Your task to perform on an android device: toggle airplane mode Image 0: 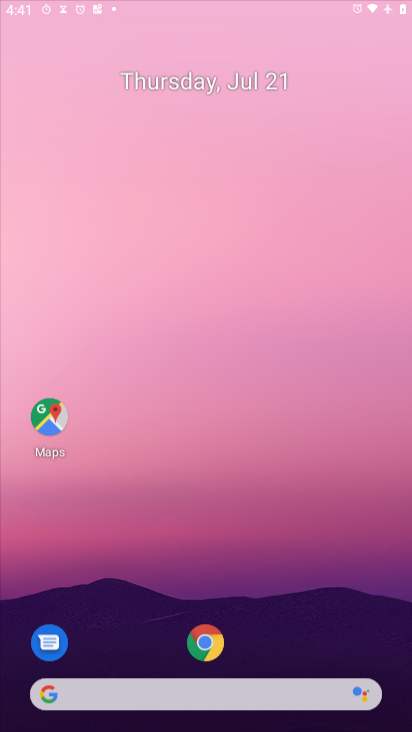
Step 0: press home button
Your task to perform on an android device: toggle airplane mode Image 1: 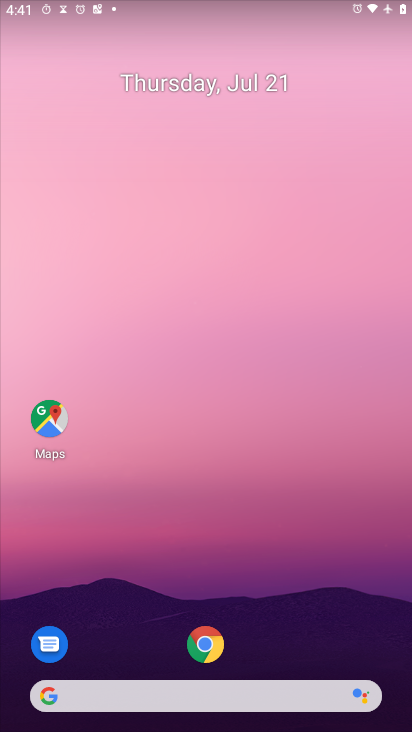
Step 1: drag from (229, 0) to (140, 582)
Your task to perform on an android device: toggle airplane mode Image 2: 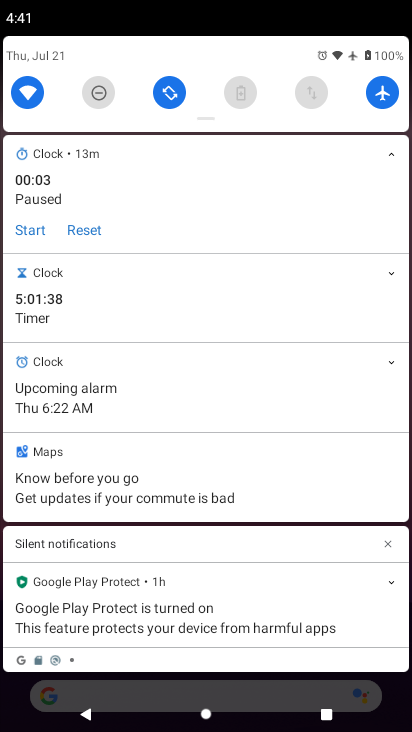
Step 2: click (381, 97)
Your task to perform on an android device: toggle airplane mode Image 3: 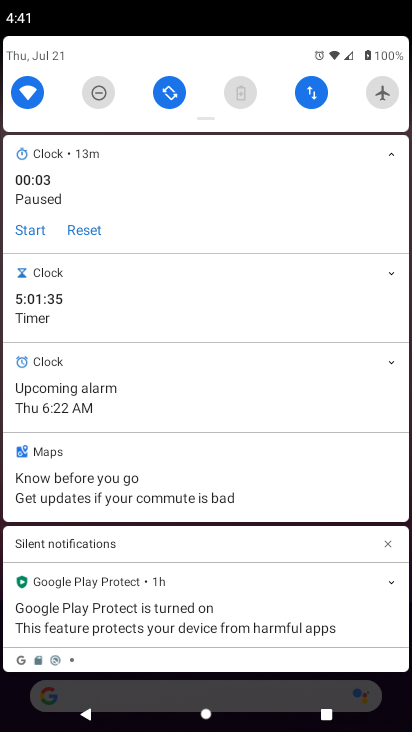
Step 3: task complete